Your task to perform on an android device: open a bookmark in the chrome app Image 0: 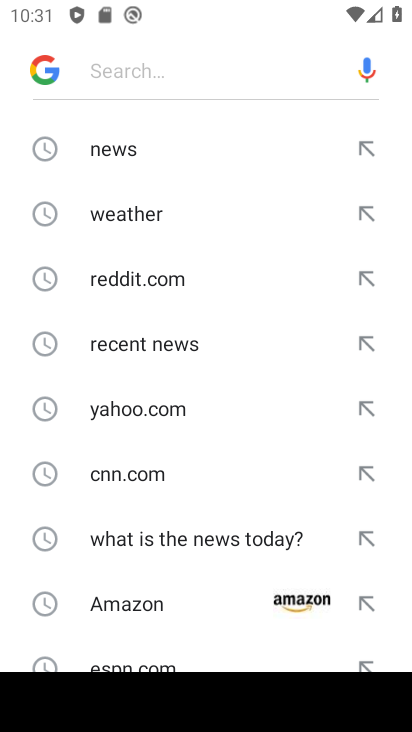
Step 0: press home button
Your task to perform on an android device: open a bookmark in the chrome app Image 1: 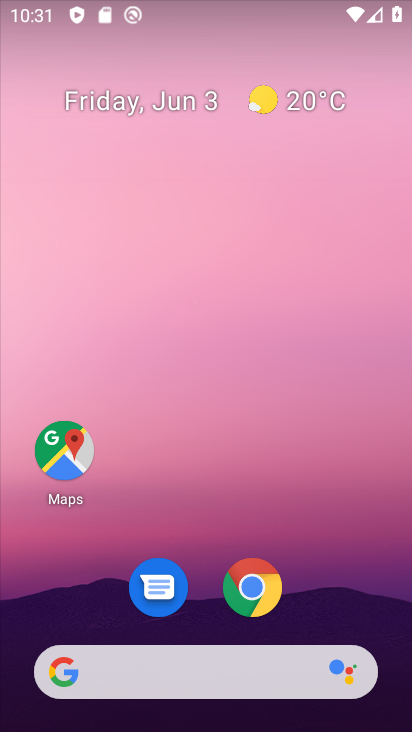
Step 1: click (255, 600)
Your task to perform on an android device: open a bookmark in the chrome app Image 2: 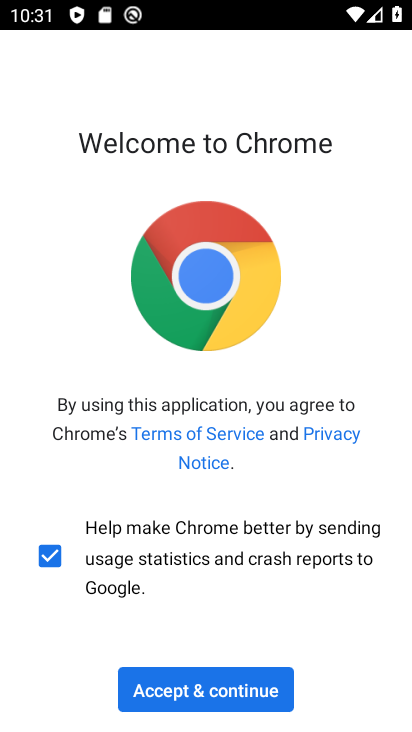
Step 2: click (224, 683)
Your task to perform on an android device: open a bookmark in the chrome app Image 3: 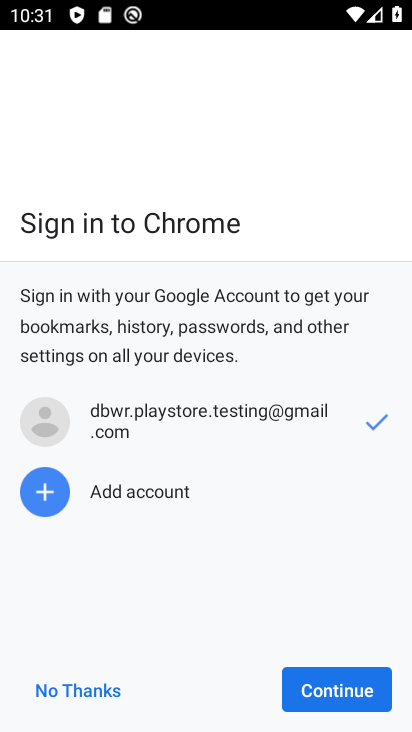
Step 3: click (239, 696)
Your task to perform on an android device: open a bookmark in the chrome app Image 4: 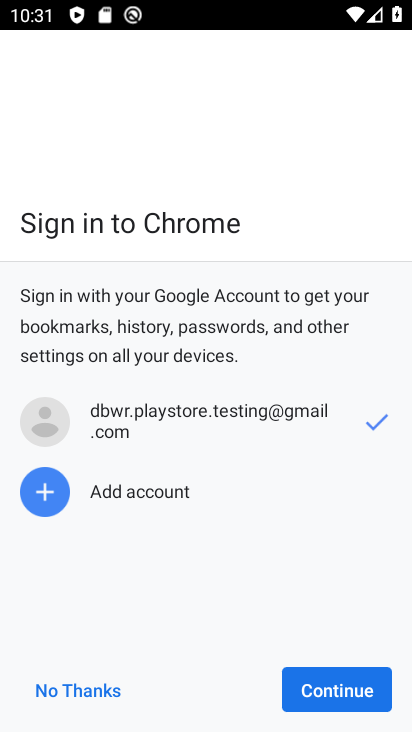
Step 4: click (350, 688)
Your task to perform on an android device: open a bookmark in the chrome app Image 5: 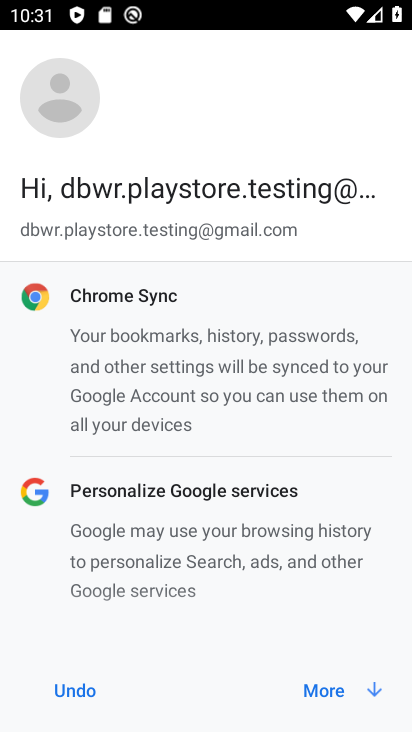
Step 5: click (319, 684)
Your task to perform on an android device: open a bookmark in the chrome app Image 6: 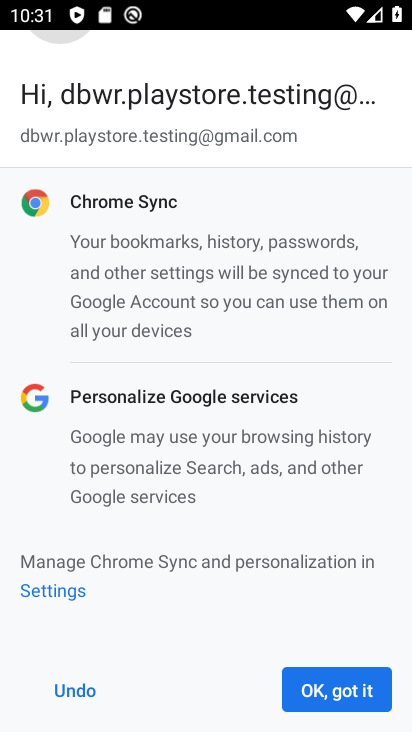
Step 6: click (340, 709)
Your task to perform on an android device: open a bookmark in the chrome app Image 7: 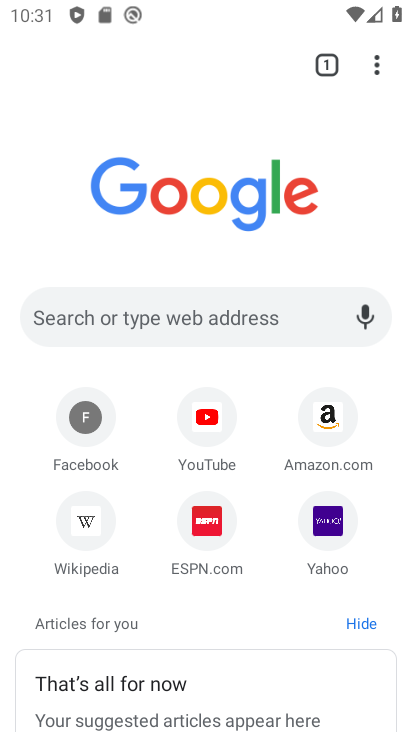
Step 7: click (377, 66)
Your task to perform on an android device: open a bookmark in the chrome app Image 8: 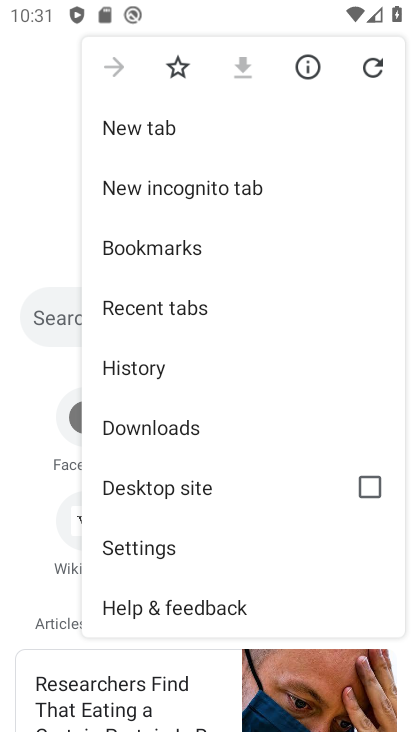
Step 8: click (175, 255)
Your task to perform on an android device: open a bookmark in the chrome app Image 9: 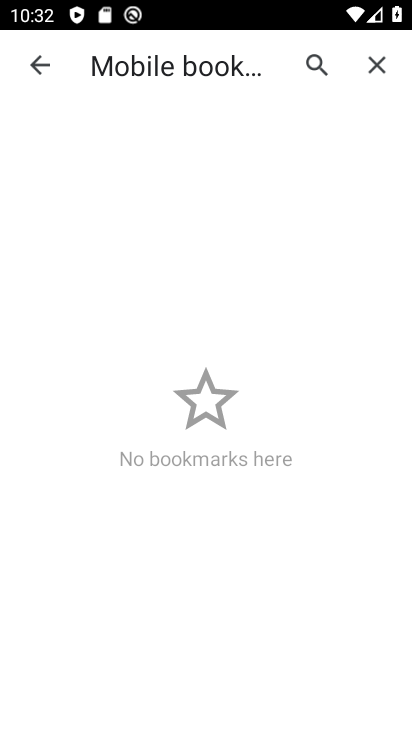
Step 9: task complete